Your task to perform on an android device: turn off smart reply in the gmail app Image 0: 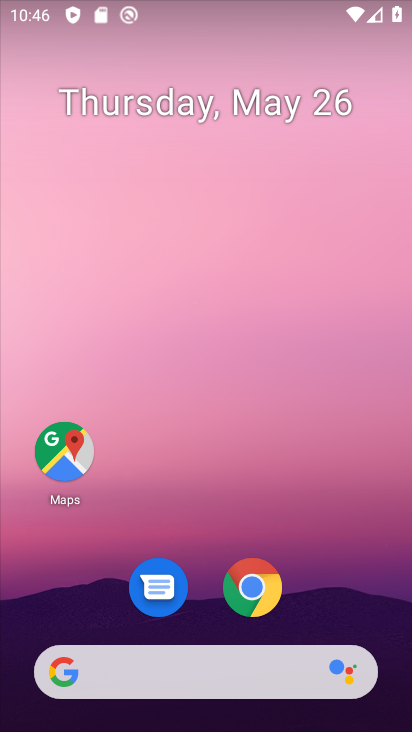
Step 0: press home button
Your task to perform on an android device: turn off smart reply in the gmail app Image 1: 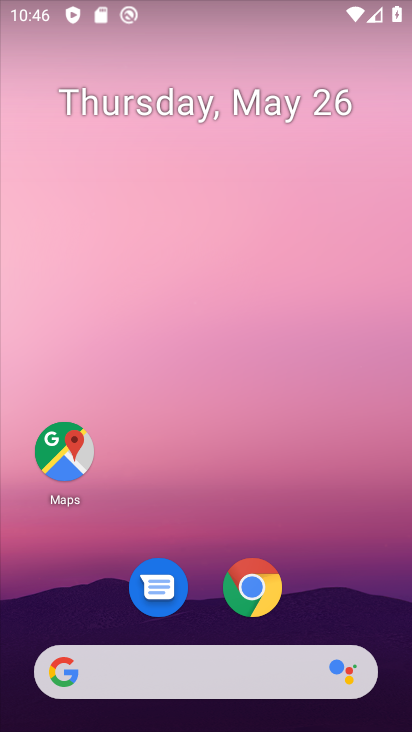
Step 1: drag from (313, 690) to (205, 32)
Your task to perform on an android device: turn off smart reply in the gmail app Image 2: 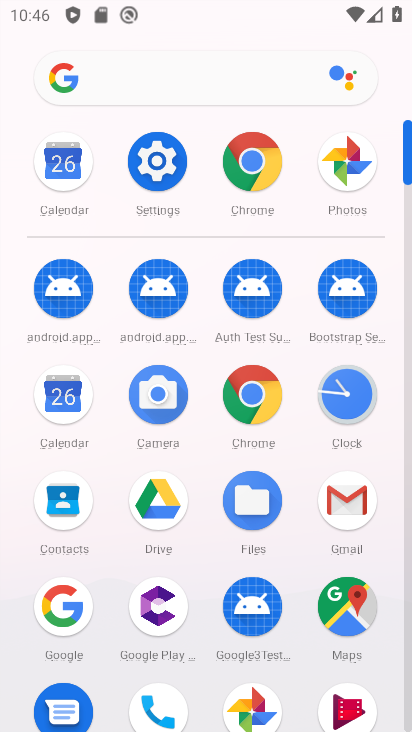
Step 2: click (337, 500)
Your task to perform on an android device: turn off smart reply in the gmail app Image 3: 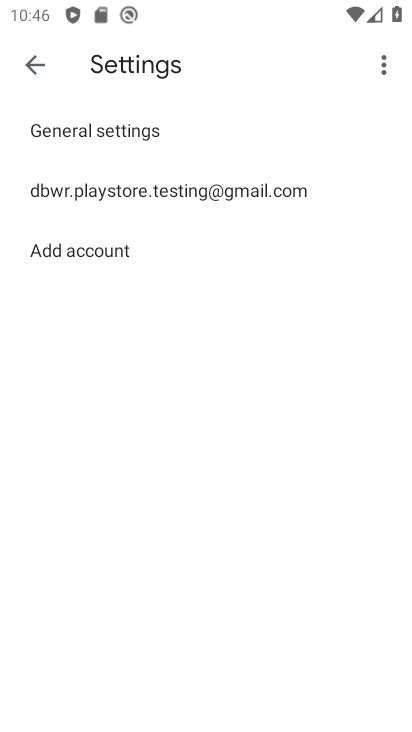
Step 3: click (161, 180)
Your task to perform on an android device: turn off smart reply in the gmail app Image 4: 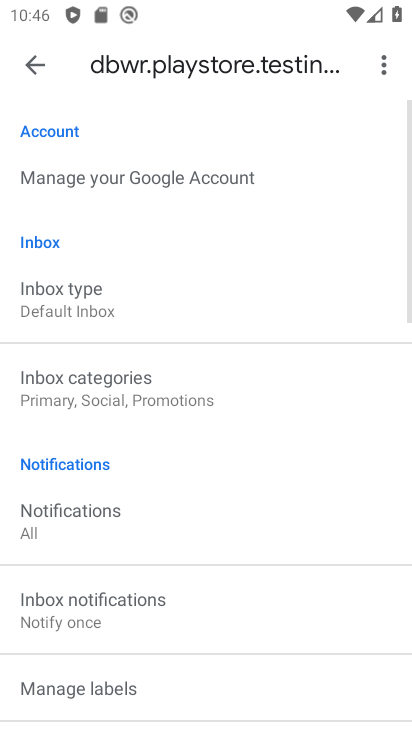
Step 4: drag from (177, 608) to (160, 457)
Your task to perform on an android device: turn off smart reply in the gmail app Image 5: 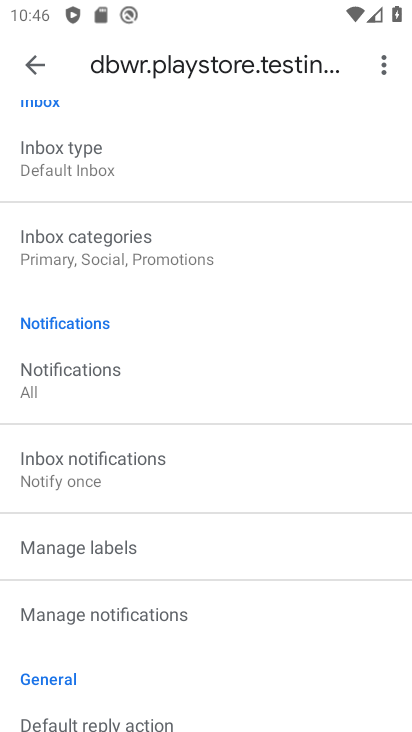
Step 5: drag from (221, 645) to (239, 295)
Your task to perform on an android device: turn off smart reply in the gmail app Image 6: 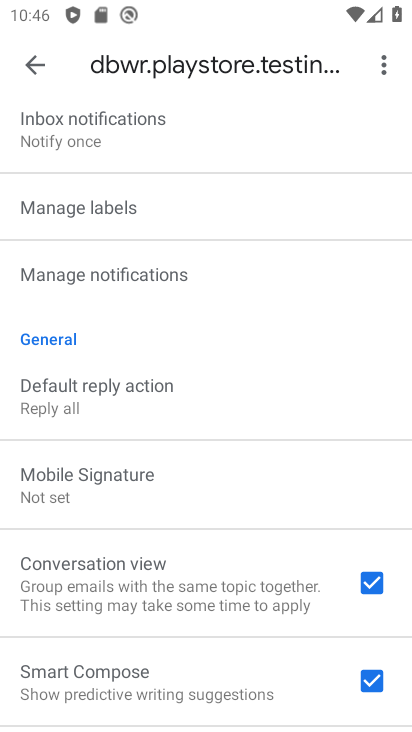
Step 6: drag from (172, 616) to (195, 450)
Your task to perform on an android device: turn off smart reply in the gmail app Image 7: 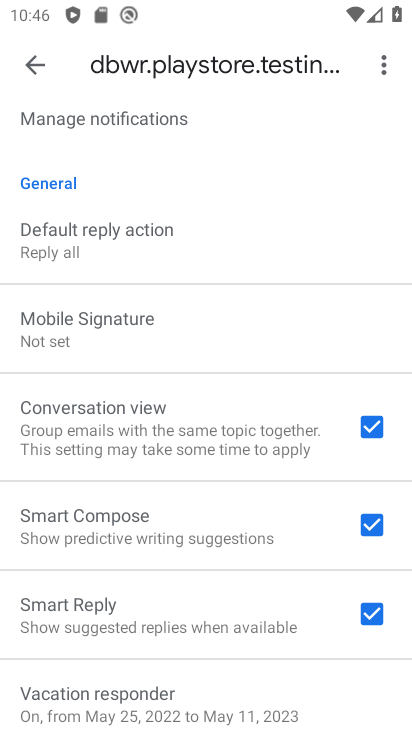
Step 7: click (366, 613)
Your task to perform on an android device: turn off smart reply in the gmail app Image 8: 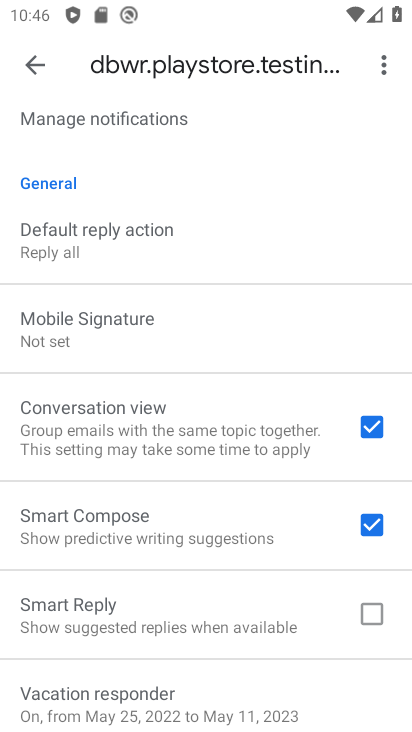
Step 8: task complete